Your task to perform on an android device: turn on showing notifications on the lock screen Image 0: 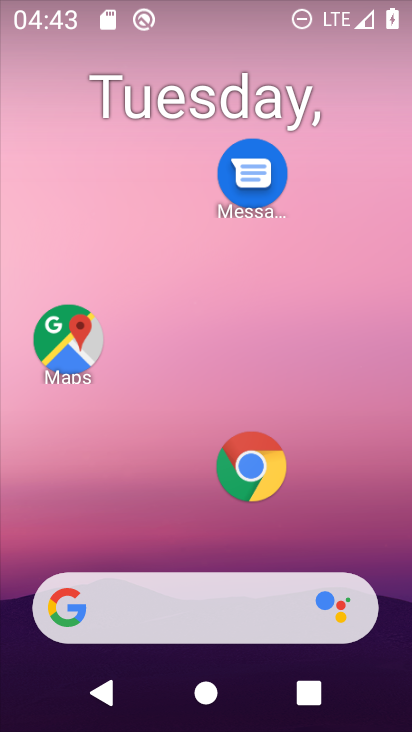
Step 0: drag from (176, 487) to (181, 113)
Your task to perform on an android device: turn on showing notifications on the lock screen Image 1: 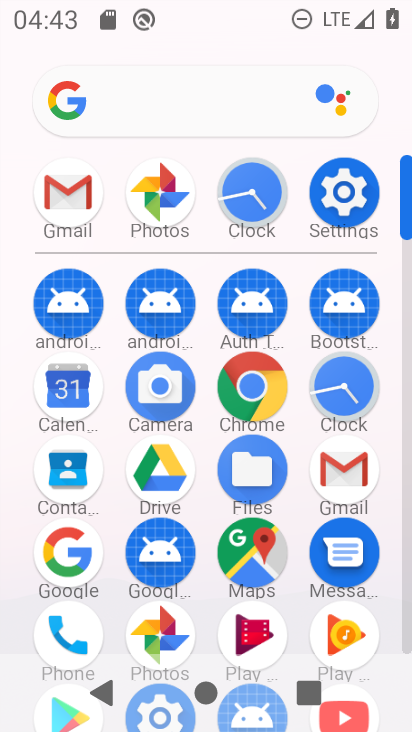
Step 1: click (340, 183)
Your task to perform on an android device: turn on showing notifications on the lock screen Image 2: 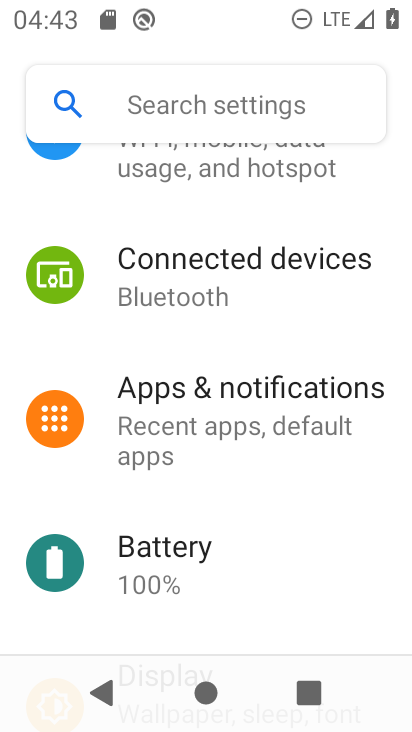
Step 2: click (177, 411)
Your task to perform on an android device: turn on showing notifications on the lock screen Image 3: 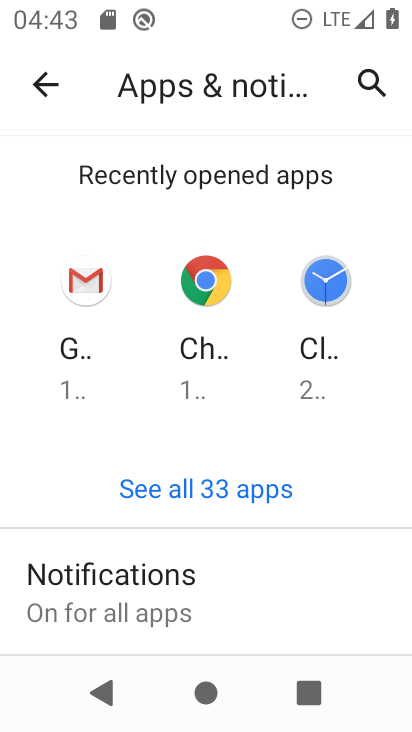
Step 3: click (196, 574)
Your task to perform on an android device: turn on showing notifications on the lock screen Image 4: 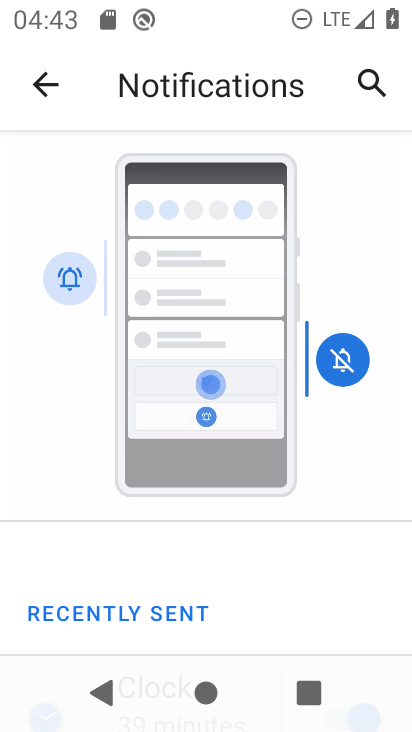
Step 4: drag from (225, 637) to (278, 194)
Your task to perform on an android device: turn on showing notifications on the lock screen Image 5: 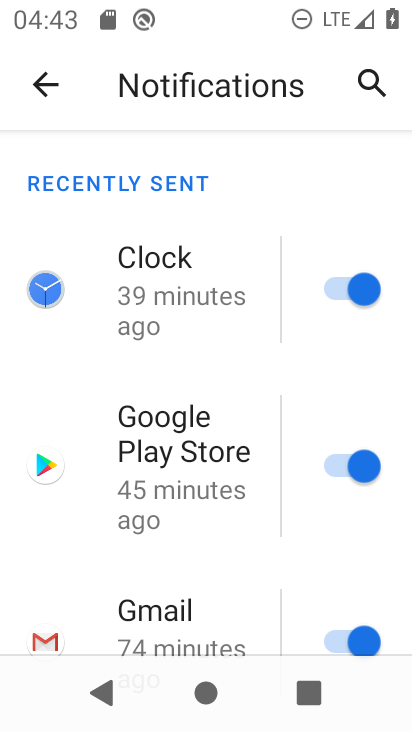
Step 5: drag from (157, 592) to (190, 158)
Your task to perform on an android device: turn on showing notifications on the lock screen Image 6: 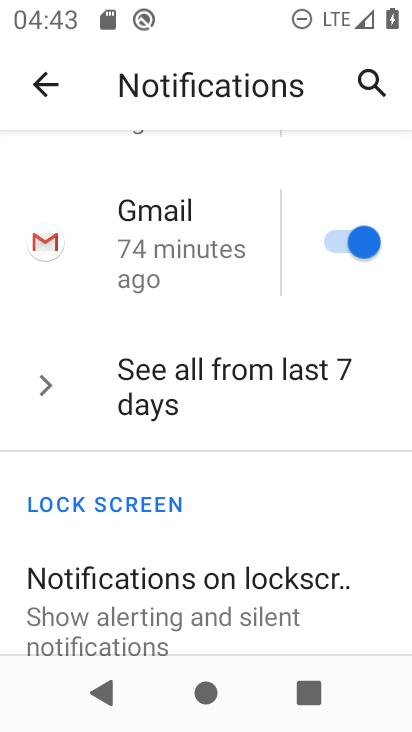
Step 6: click (186, 600)
Your task to perform on an android device: turn on showing notifications on the lock screen Image 7: 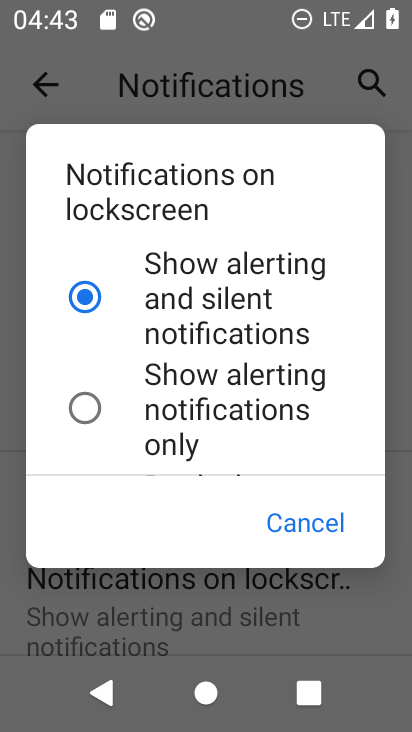
Step 7: task complete